Your task to perform on an android device: Go to ESPN.com Image 0: 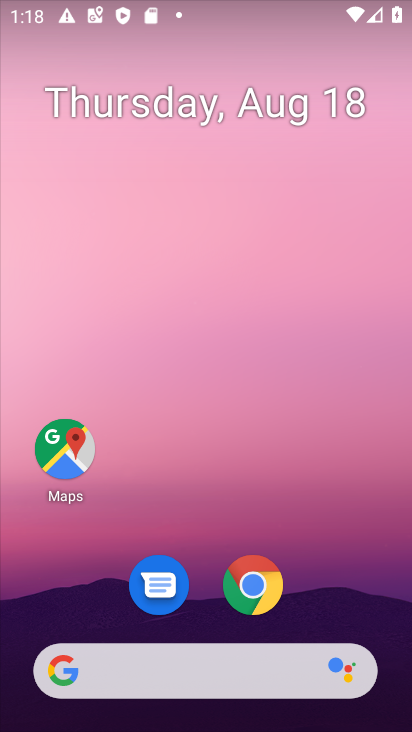
Step 0: click (228, 687)
Your task to perform on an android device: Go to ESPN.com Image 1: 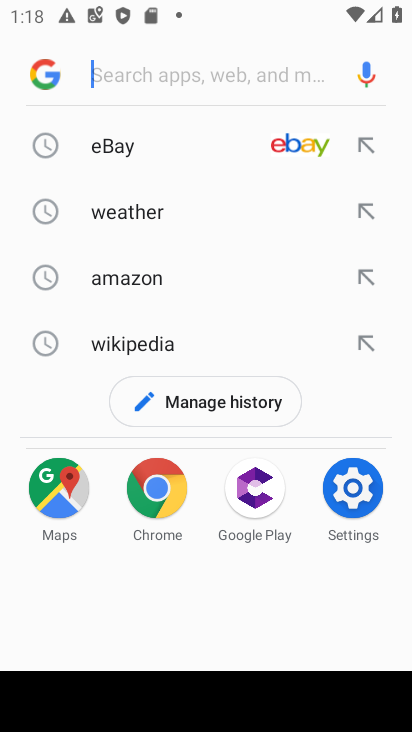
Step 1: type "espn.com"
Your task to perform on an android device: Go to ESPN.com Image 2: 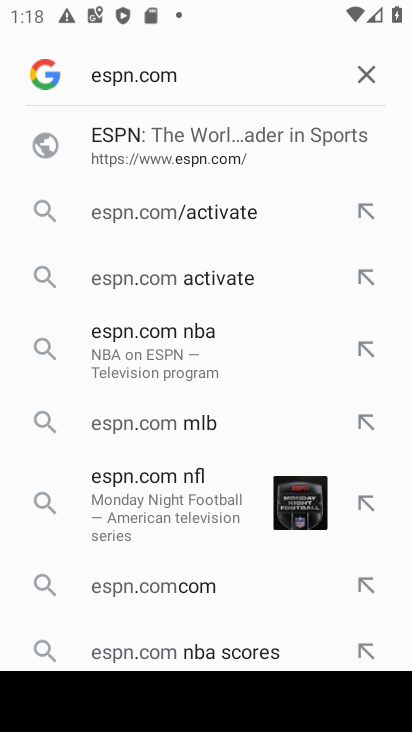
Step 2: click (208, 146)
Your task to perform on an android device: Go to ESPN.com Image 3: 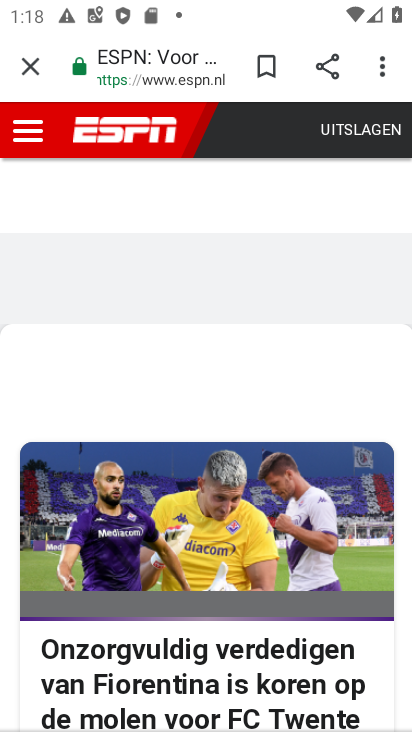
Step 3: drag from (247, 527) to (282, 190)
Your task to perform on an android device: Go to ESPN.com Image 4: 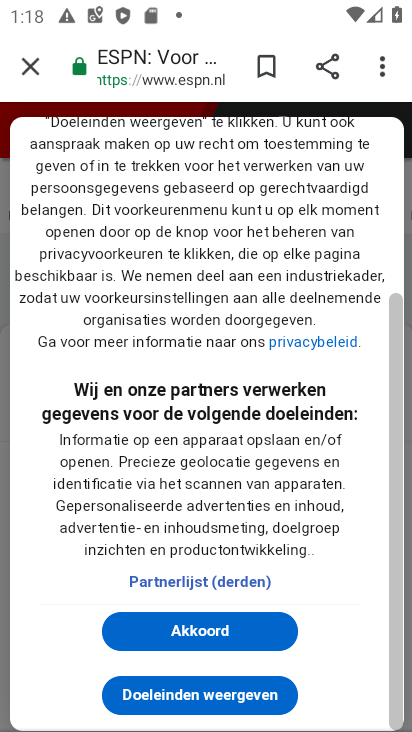
Step 4: click (264, 638)
Your task to perform on an android device: Go to ESPN.com Image 5: 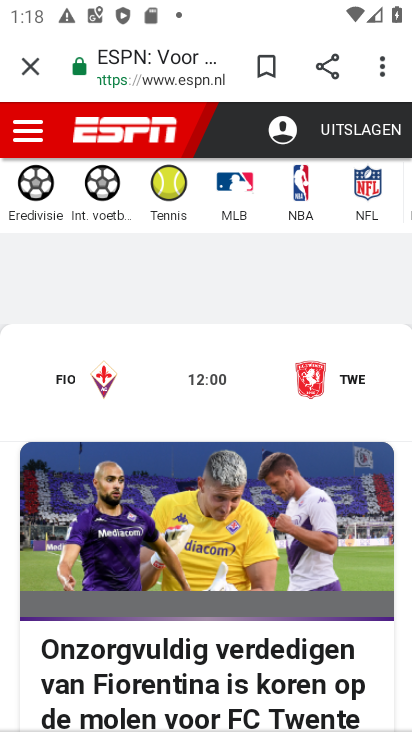
Step 5: task complete